Your task to perform on an android device: turn smart compose on in the gmail app Image 0: 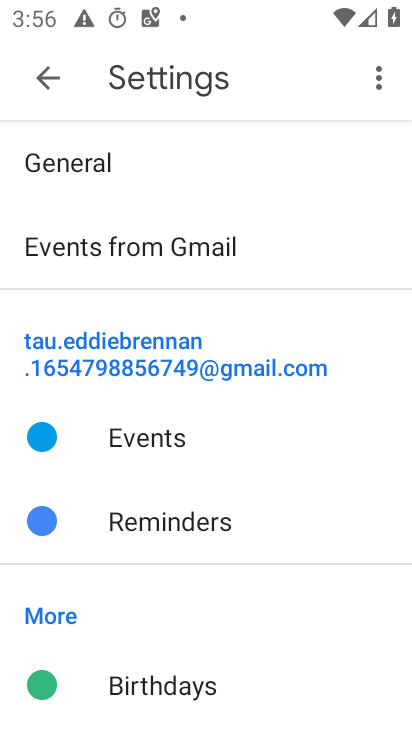
Step 0: click (49, 56)
Your task to perform on an android device: turn smart compose on in the gmail app Image 1: 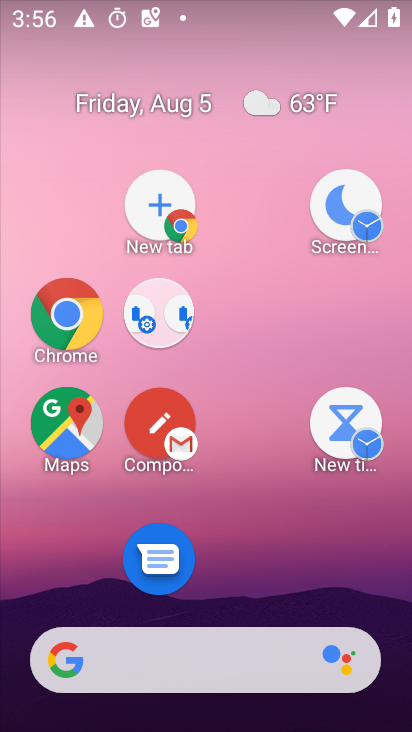
Step 1: drag from (223, 467) to (130, 92)
Your task to perform on an android device: turn smart compose on in the gmail app Image 2: 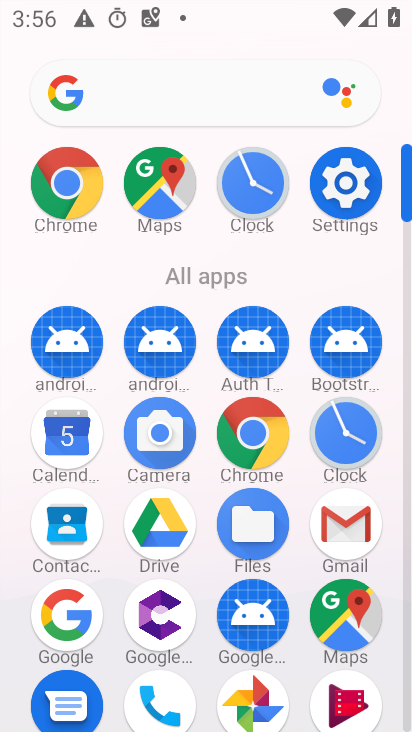
Step 2: click (346, 523)
Your task to perform on an android device: turn smart compose on in the gmail app Image 3: 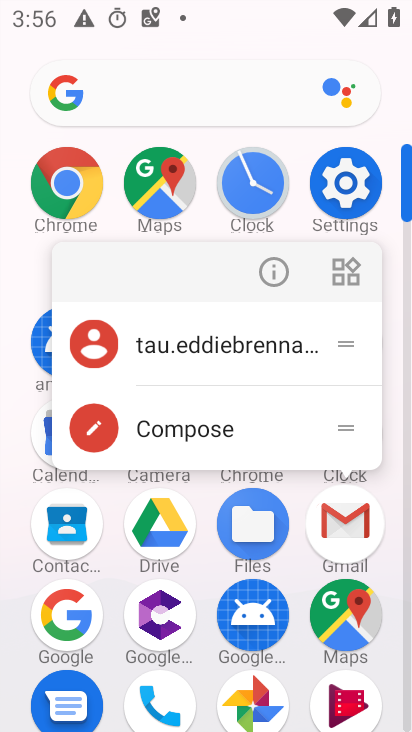
Step 3: click (347, 528)
Your task to perform on an android device: turn smart compose on in the gmail app Image 4: 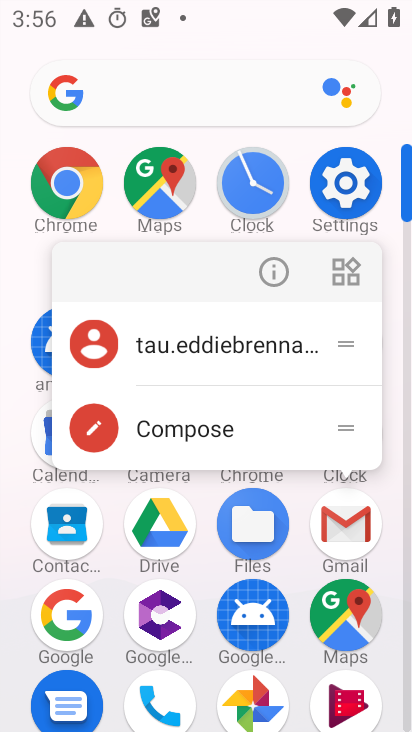
Step 4: click (350, 519)
Your task to perform on an android device: turn smart compose on in the gmail app Image 5: 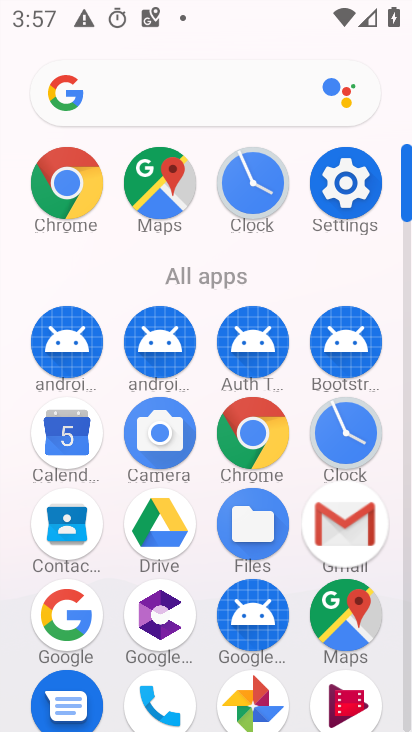
Step 5: click (350, 512)
Your task to perform on an android device: turn smart compose on in the gmail app Image 6: 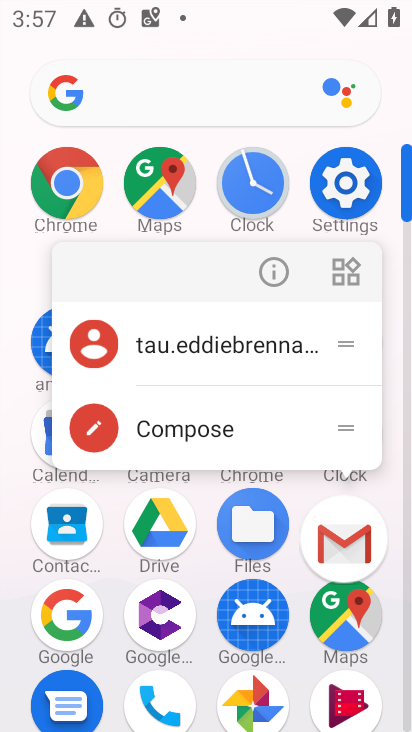
Step 6: click (350, 526)
Your task to perform on an android device: turn smart compose on in the gmail app Image 7: 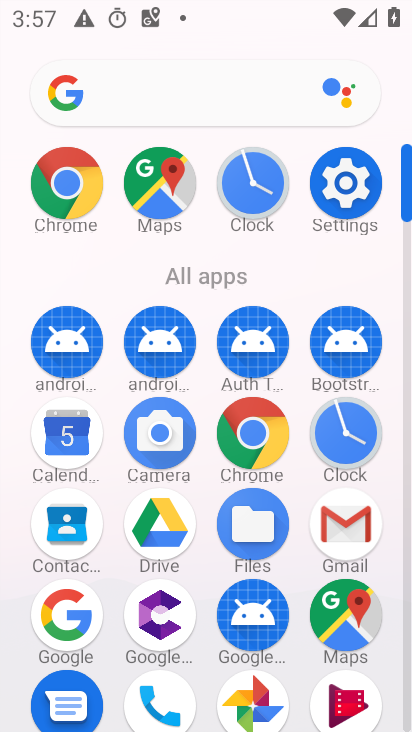
Step 7: click (352, 531)
Your task to perform on an android device: turn smart compose on in the gmail app Image 8: 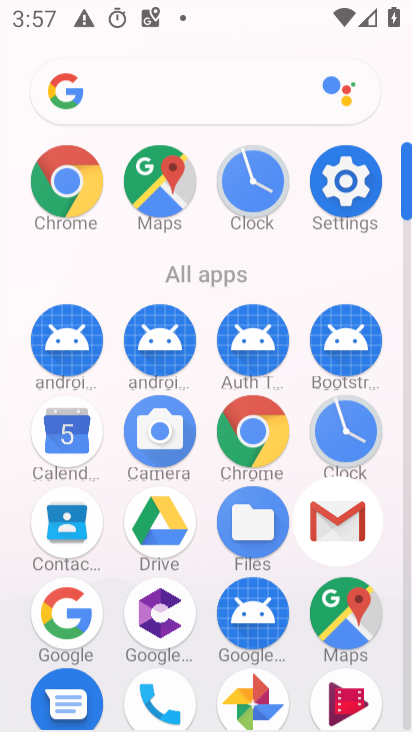
Step 8: click (353, 532)
Your task to perform on an android device: turn smart compose on in the gmail app Image 9: 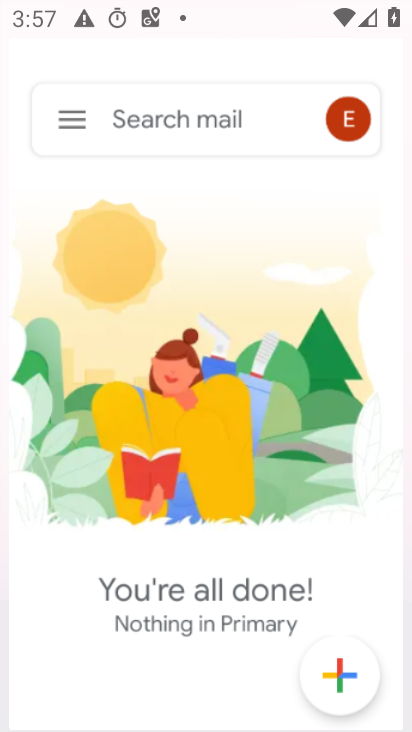
Step 9: click (354, 533)
Your task to perform on an android device: turn smart compose on in the gmail app Image 10: 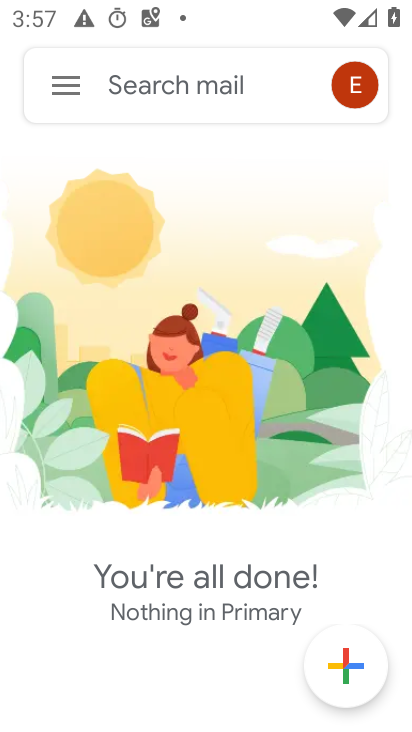
Step 10: click (64, 84)
Your task to perform on an android device: turn smart compose on in the gmail app Image 11: 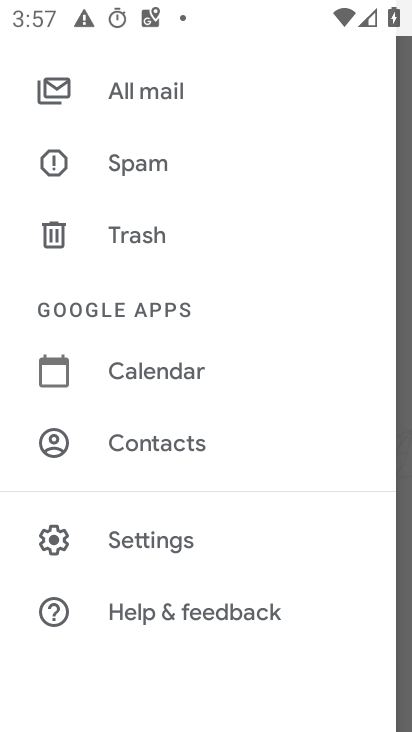
Step 11: click (127, 536)
Your task to perform on an android device: turn smart compose on in the gmail app Image 12: 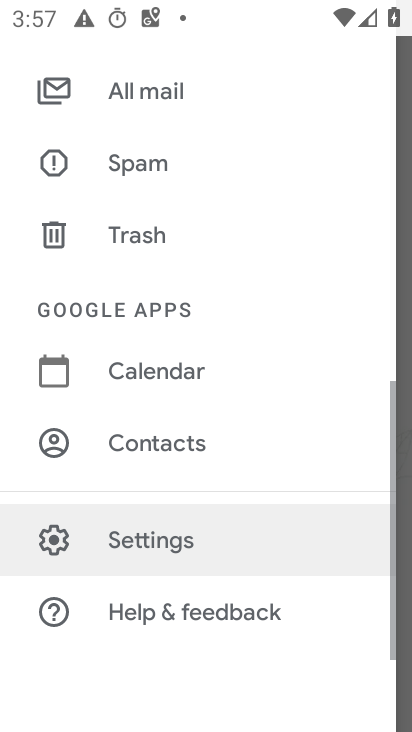
Step 12: click (134, 535)
Your task to perform on an android device: turn smart compose on in the gmail app Image 13: 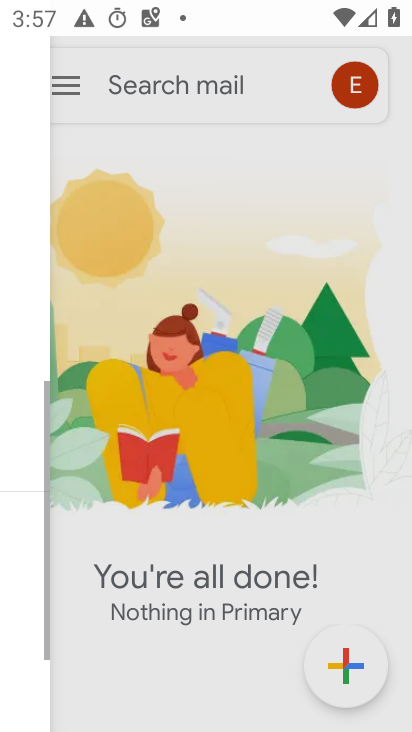
Step 13: click (139, 535)
Your task to perform on an android device: turn smart compose on in the gmail app Image 14: 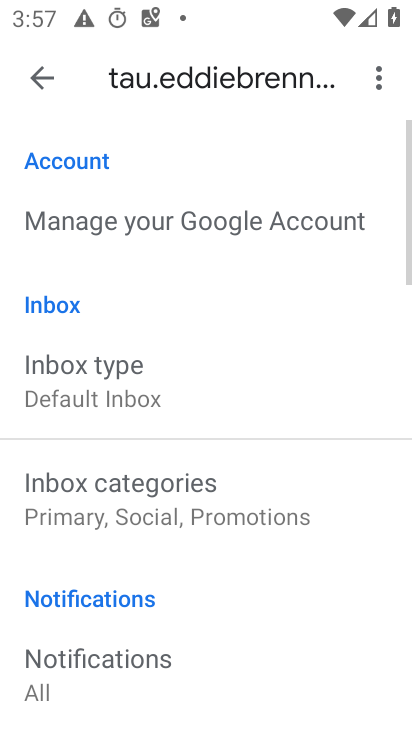
Step 14: drag from (128, 559) to (108, 209)
Your task to perform on an android device: turn smart compose on in the gmail app Image 15: 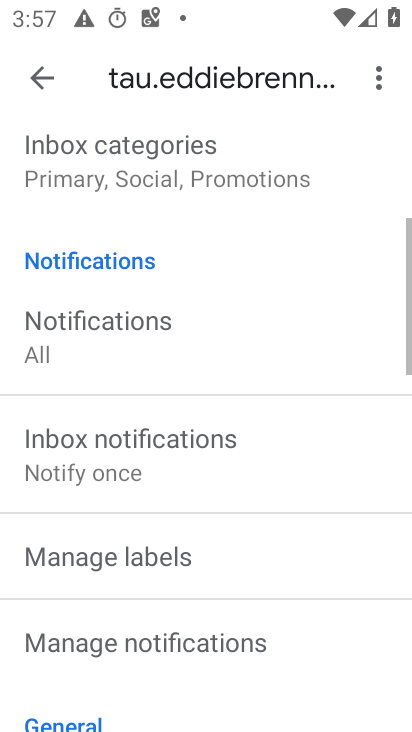
Step 15: drag from (181, 540) to (193, 102)
Your task to perform on an android device: turn smart compose on in the gmail app Image 16: 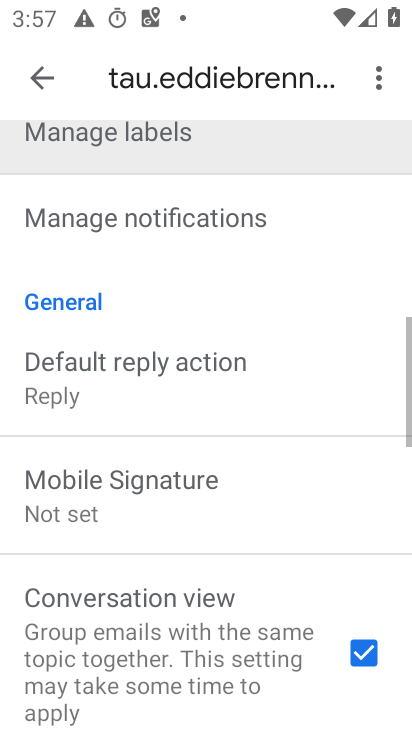
Step 16: drag from (204, 387) to (204, 135)
Your task to perform on an android device: turn smart compose on in the gmail app Image 17: 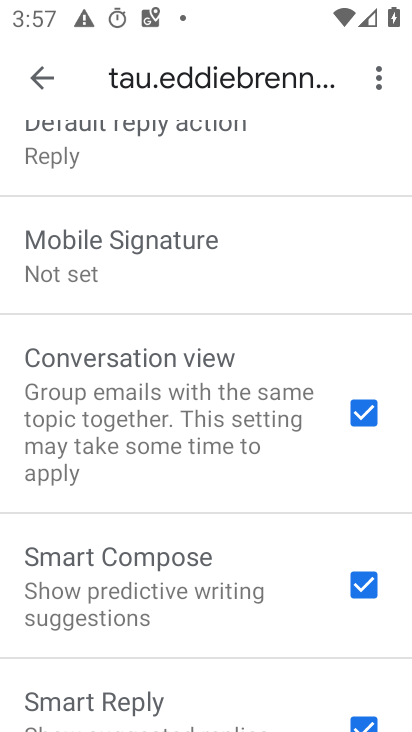
Step 17: click (365, 720)
Your task to perform on an android device: turn smart compose on in the gmail app Image 18: 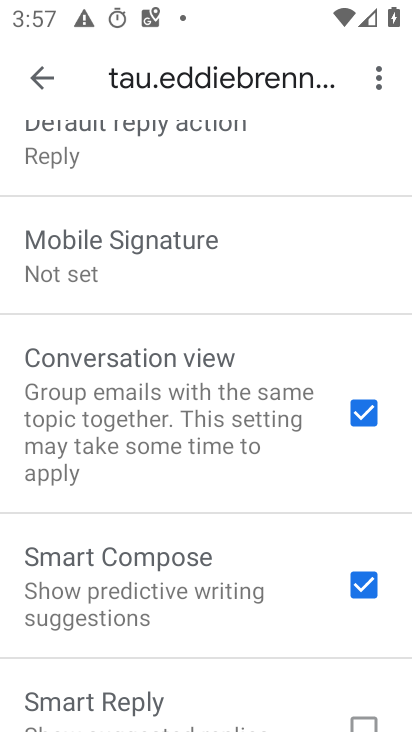
Step 18: click (365, 721)
Your task to perform on an android device: turn smart compose on in the gmail app Image 19: 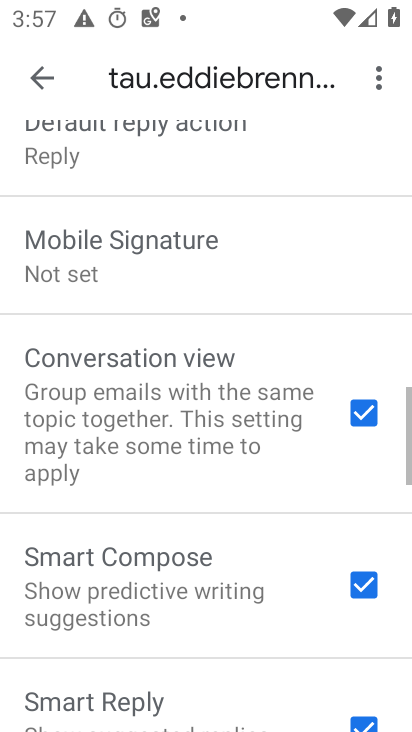
Step 19: click (359, 577)
Your task to perform on an android device: turn smart compose on in the gmail app Image 20: 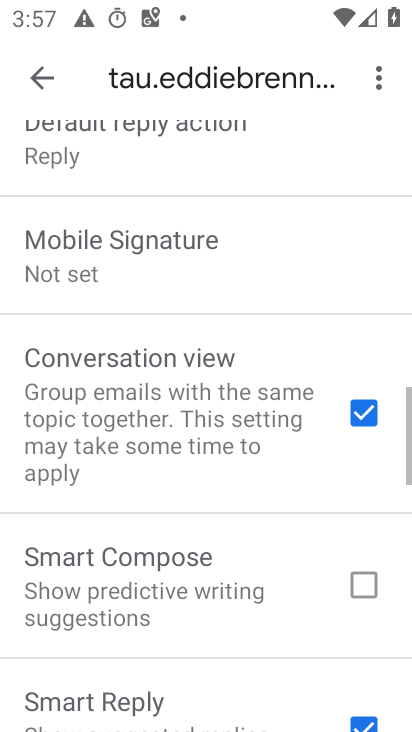
Step 20: click (362, 569)
Your task to perform on an android device: turn smart compose on in the gmail app Image 21: 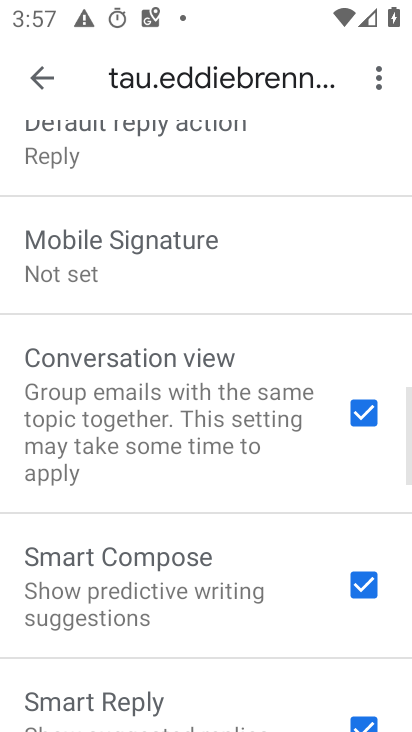
Step 21: task complete